Your task to perform on an android device: check battery use Image 0: 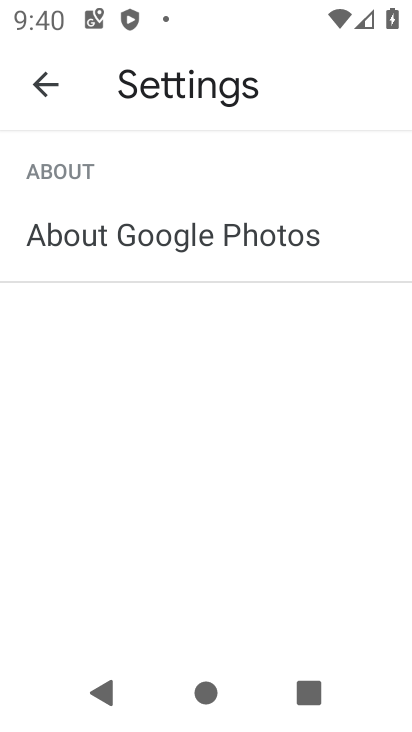
Step 0: press home button
Your task to perform on an android device: check battery use Image 1: 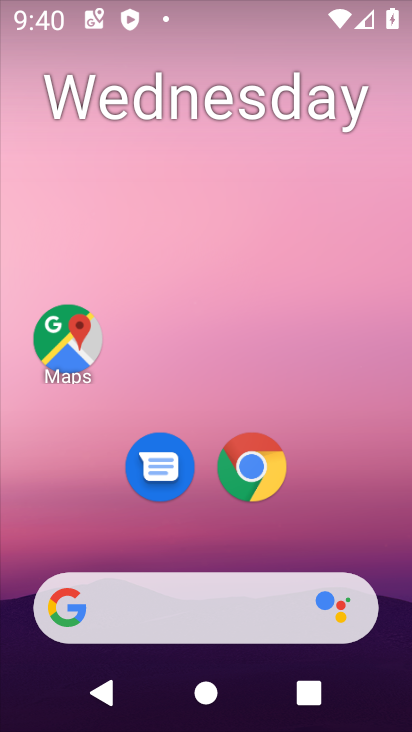
Step 1: drag from (313, 520) to (273, 53)
Your task to perform on an android device: check battery use Image 2: 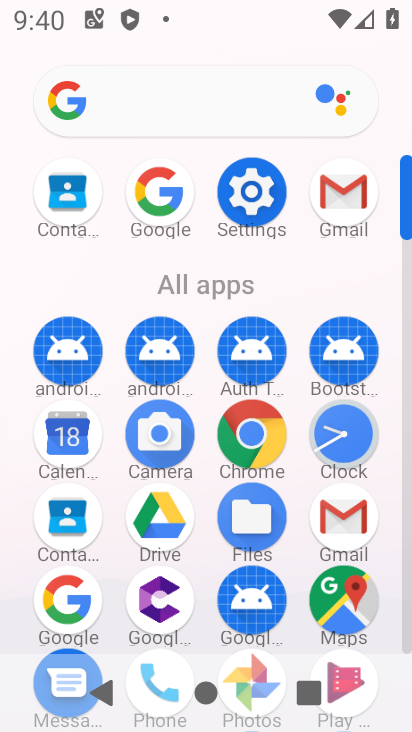
Step 2: click (258, 175)
Your task to perform on an android device: check battery use Image 3: 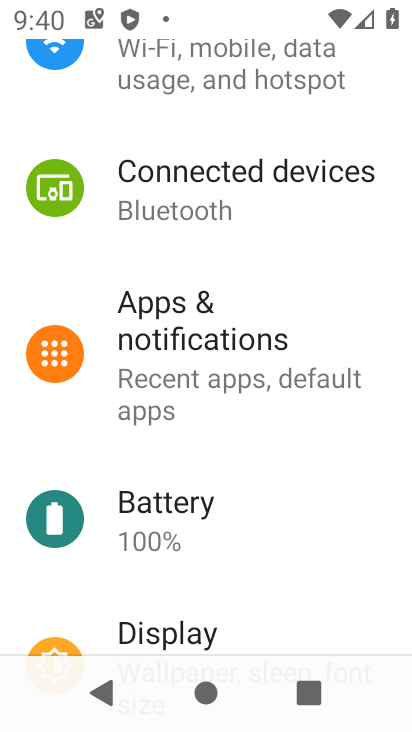
Step 3: click (202, 509)
Your task to perform on an android device: check battery use Image 4: 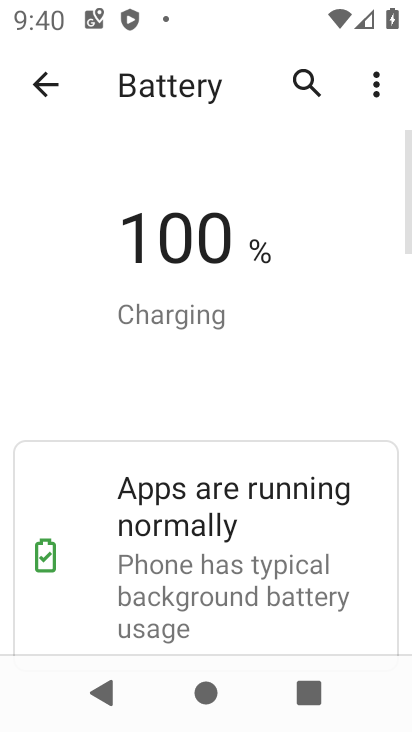
Step 4: click (378, 90)
Your task to perform on an android device: check battery use Image 5: 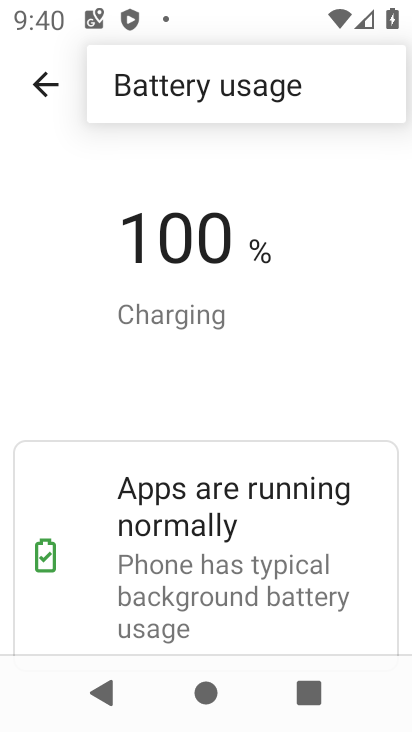
Step 5: click (251, 80)
Your task to perform on an android device: check battery use Image 6: 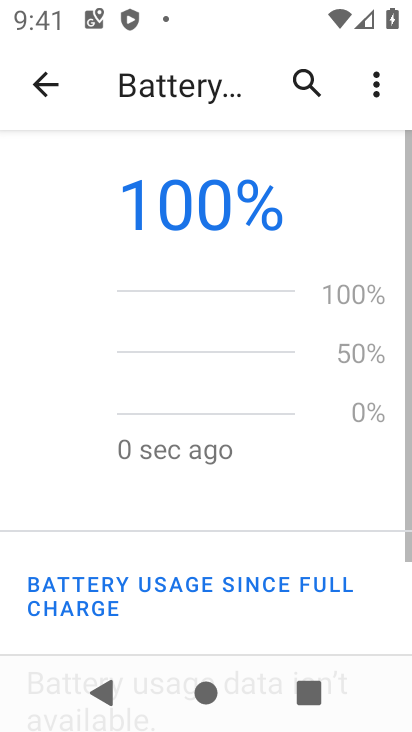
Step 6: task complete